Your task to perform on an android device: add a label to a message in the gmail app Image 0: 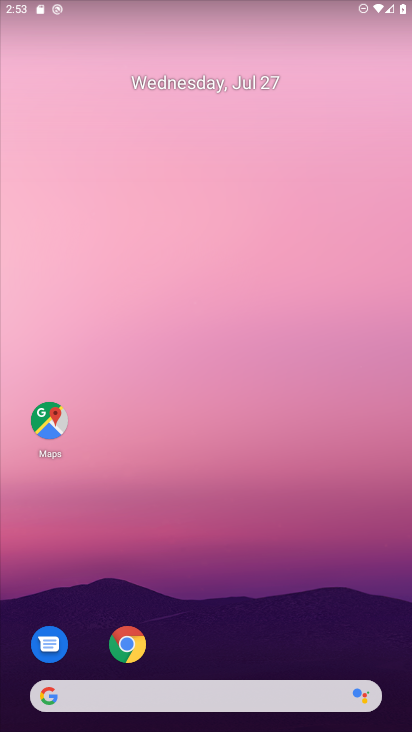
Step 0: drag from (201, 619) to (265, 1)
Your task to perform on an android device: add a label to a message in the gmail app Image 1: 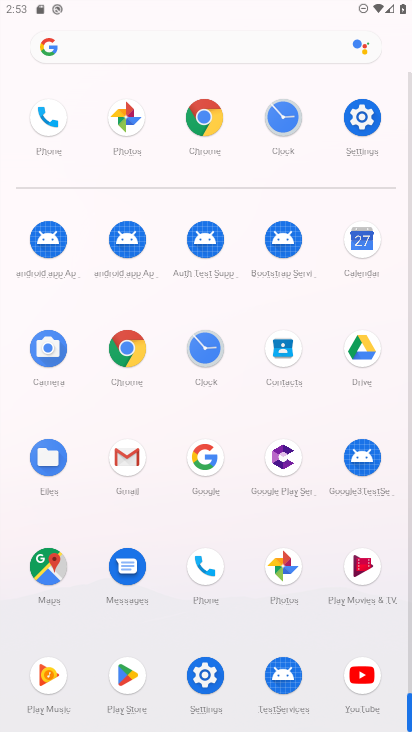
Step 1: click (117, 466)
Your task to perform on an android device: add a label to a message in the gmail app Image 2: 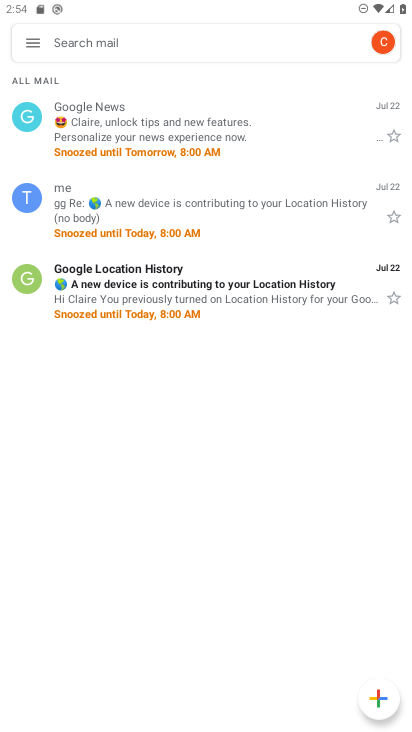
Step 2: click (23, 37)
Your task to perform on an android device: add a label to a message in the gmail app Image 3: 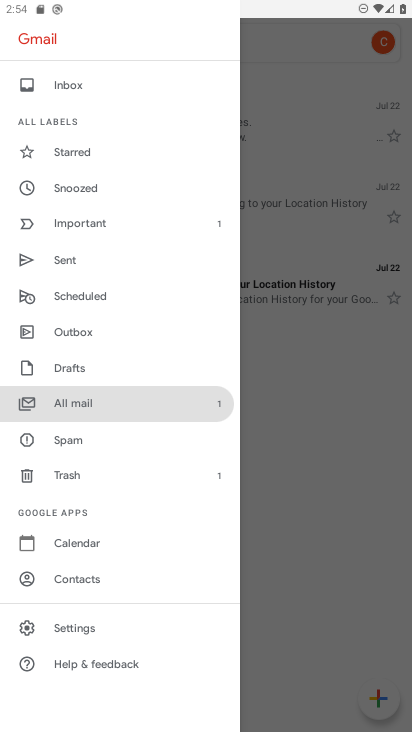
Step 3: drag from (74, 147) to (82, 445)
Your task to perform on an android device: add a label to a message in the gmail app Image 4: 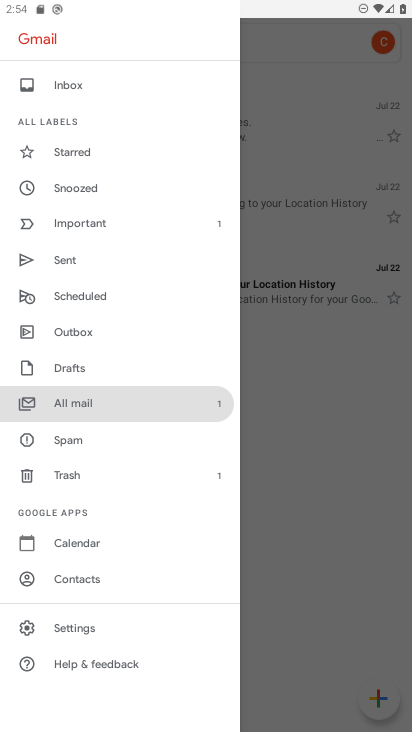
Step 4: click (74, 78)
Your task to perform on an android device: add a label to a message in the gmail app Image 5: 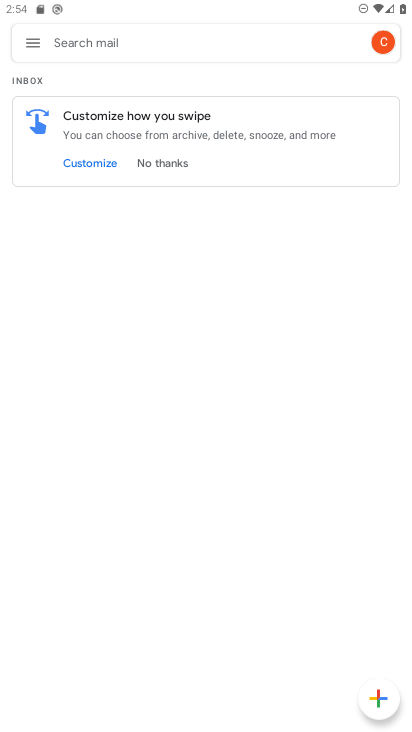
Step 5: click (177, 164)
Your task to perform on an android device: add a label to a message in the gmail app Image 6: 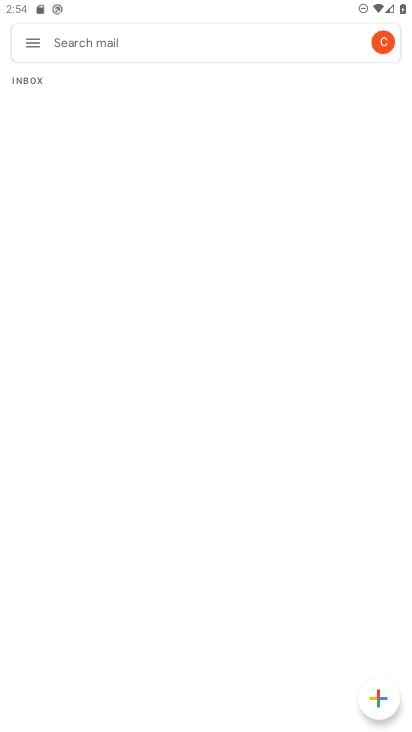
Step 6: task complete